Your task to perform on an android device: change notifications settings Image 0: 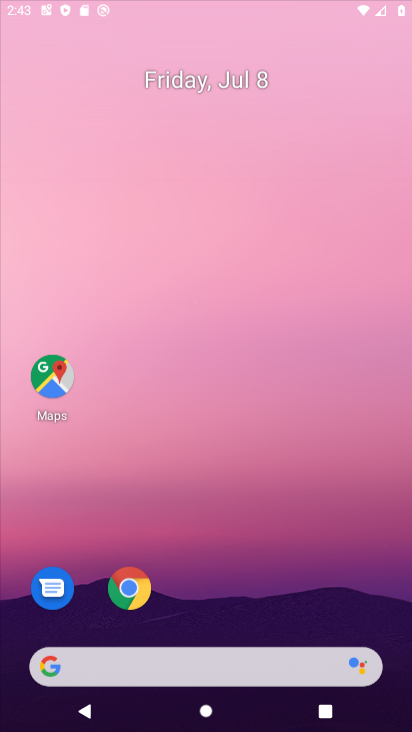
Step 0: press home button
Your task to perform on an android device: change notifications settings Image 1: 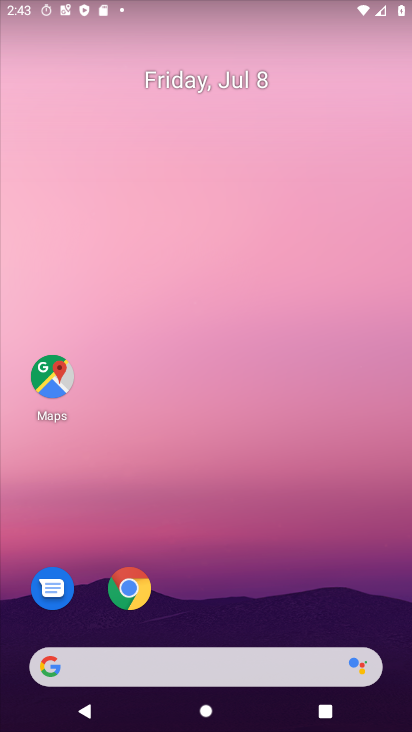
Step 1: drag from (249, 621) to (249, 36)
Your task to perform on an android device: change notifications settings Image 2: 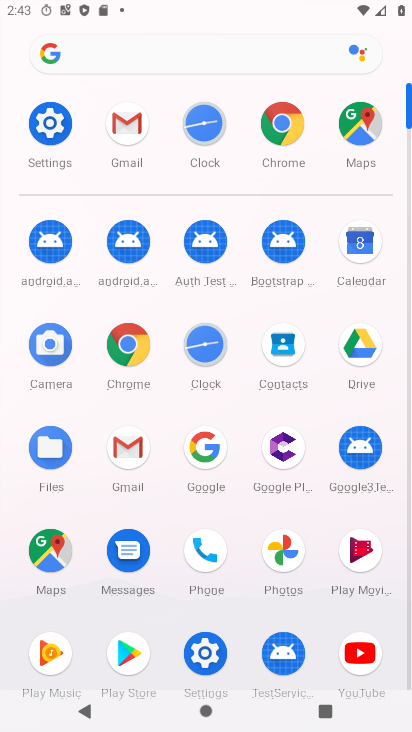
Step 2: click (47, 126)
Your task to perform on an android device: change notifications settings Image 3: 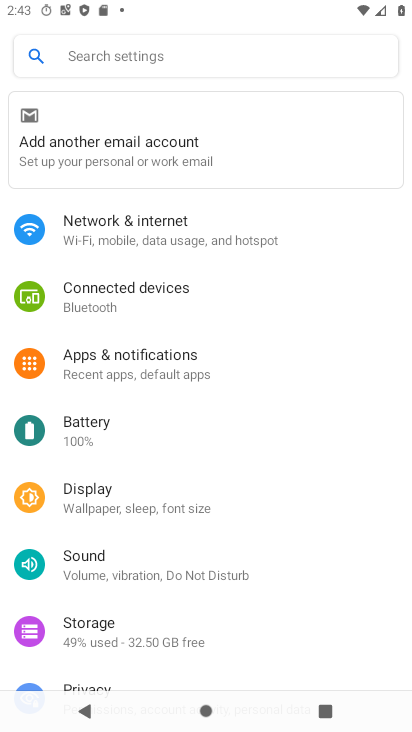
Step 3: click (171, 370)
Your task to perform on an android device: change notifications settings Image 4: 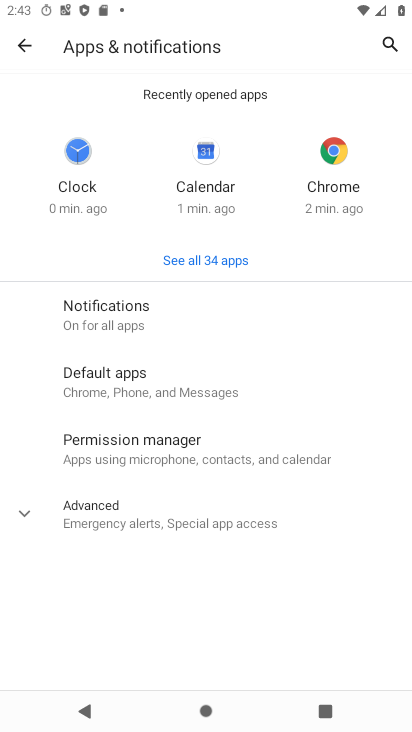
Step 4: click (92, 318)
Your task to perform on an android device: change notifications settings Image 5: 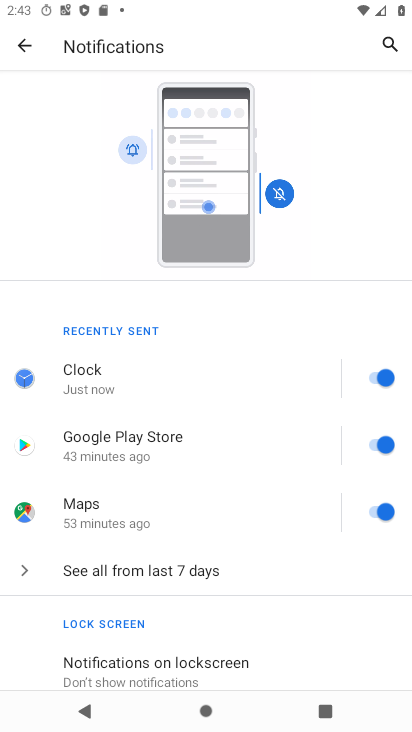
Step 5: click (198, 666)
Your task to perform on an android device: change notifications settings Image 6: 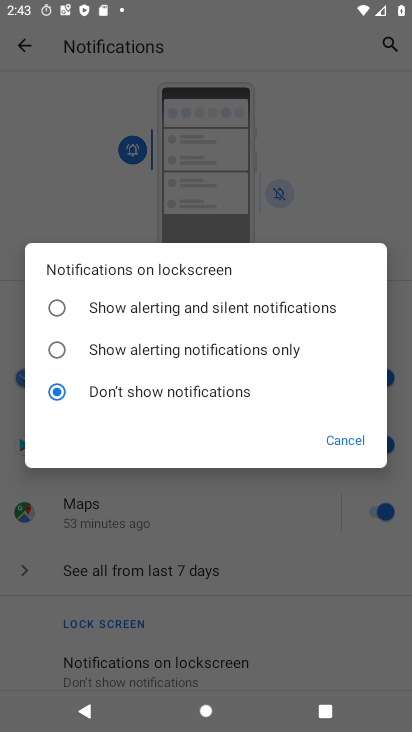
Step 6: click (59, 309)
Your task to perform on an android device: change notifications settings Image 7: 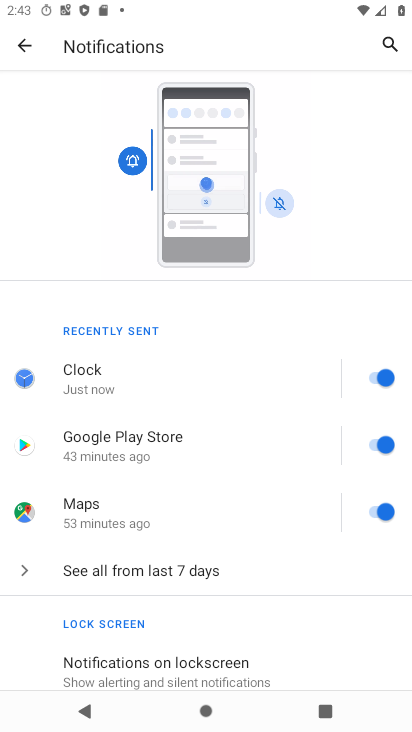
Step 7: task complete